Your task to perform on an android device: Go to Yahoo.com Image 0: 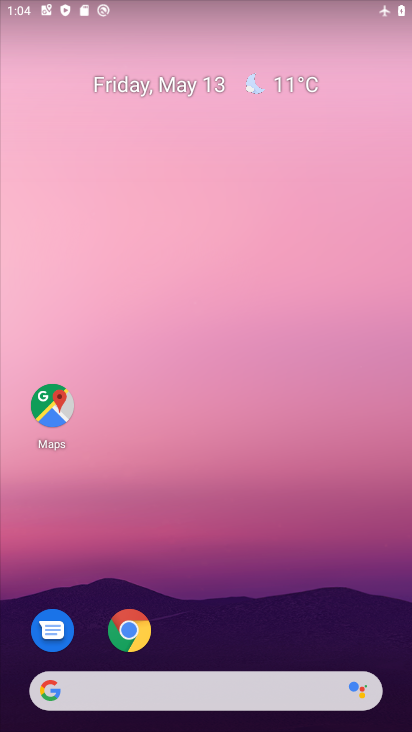
Step 0: click (128, 625)
Your task to perform on an android device: Go to Yahoo.com Image 1: 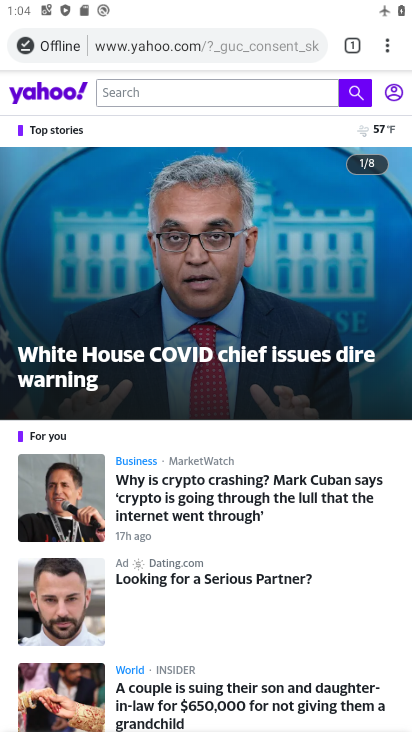
Step 1: task complete